Your task to perform on an android device: turn off location Image 0: 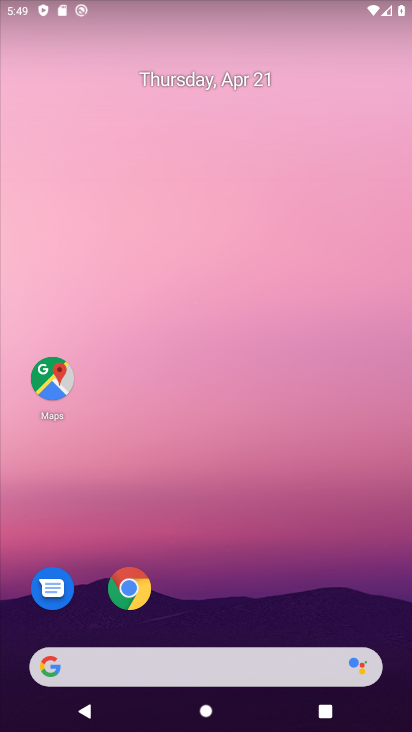
Step 0: drag from (228, 593) to (228, 193)
Your task to perform on an android device: turn off location Image 1: 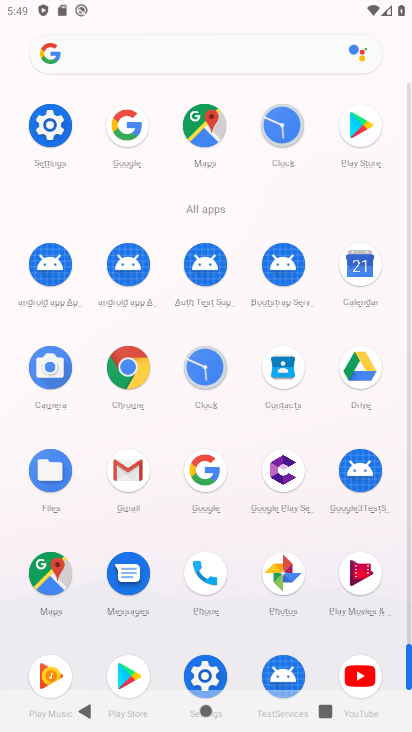
Step 1: click (34, 141)
Your task to perform on an android device: turn off location Image 2: 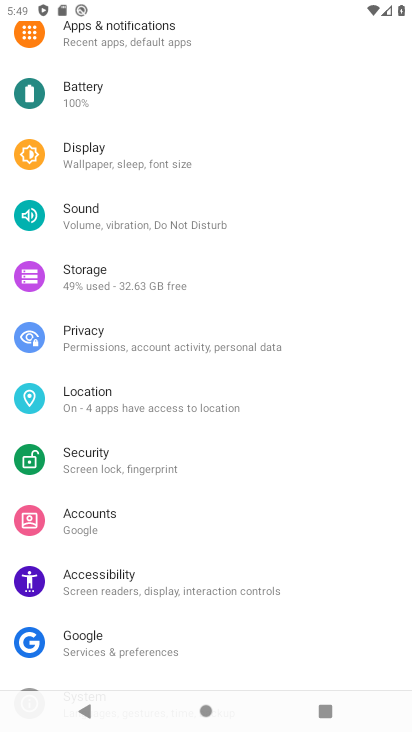
Step 2: click (74, 403)
Your task to perform on an android device: turn off location Image 3: 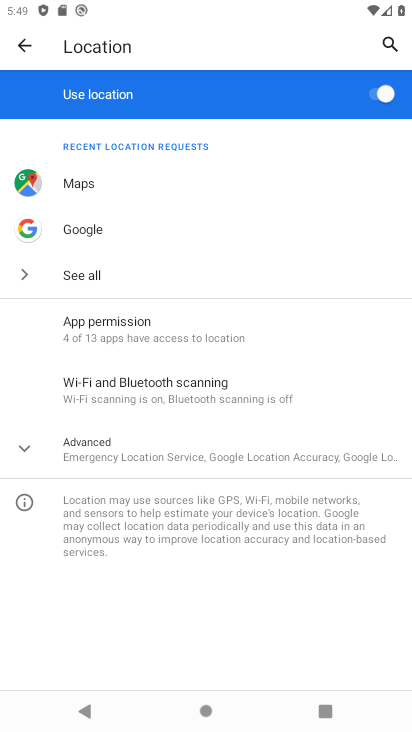
Step 3: click (375, 101)
Your task to perform on an android device: turn off location Image 4: 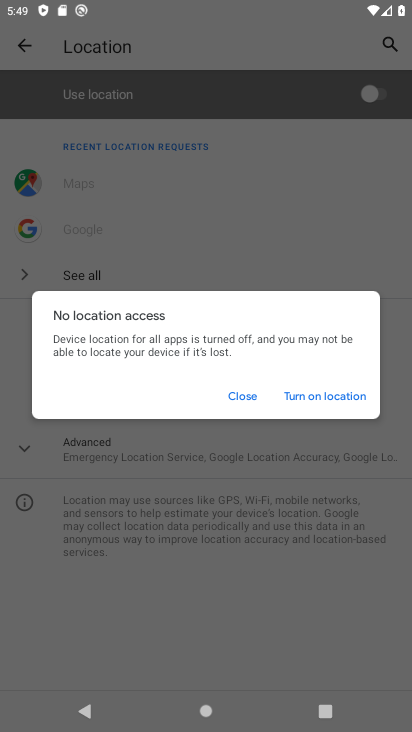
Step 4: task complete